Your task to perform on an android device: change your default location settings in chrome Image 0: 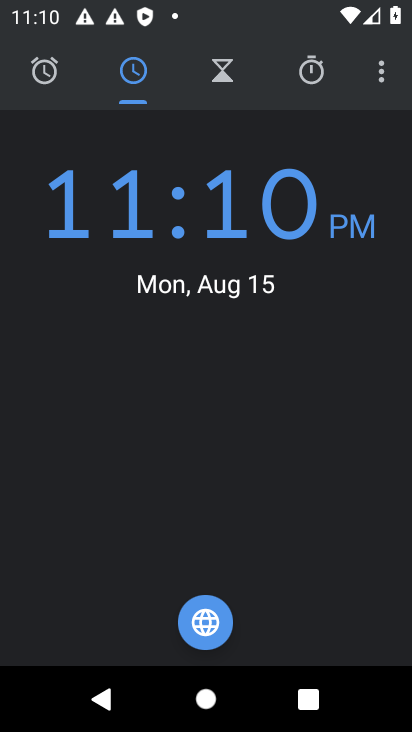
Step 0: press home button
Your task to perform on an android device: change your default location settings in chrome Image 1: 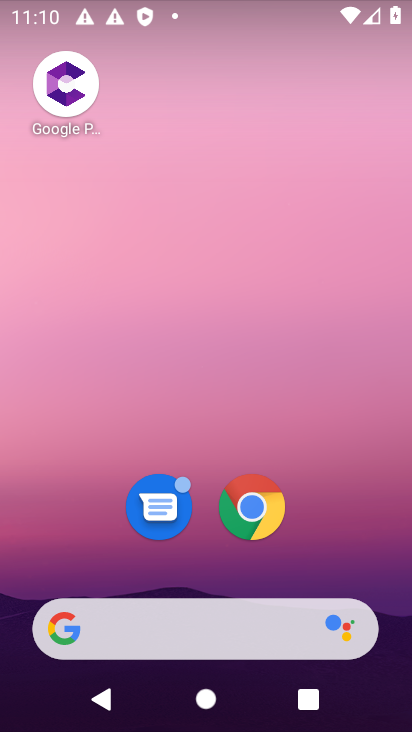
Step 1: click (251, 516)
Your task to perform on an android device: change your default location settings in chrome Image 2: 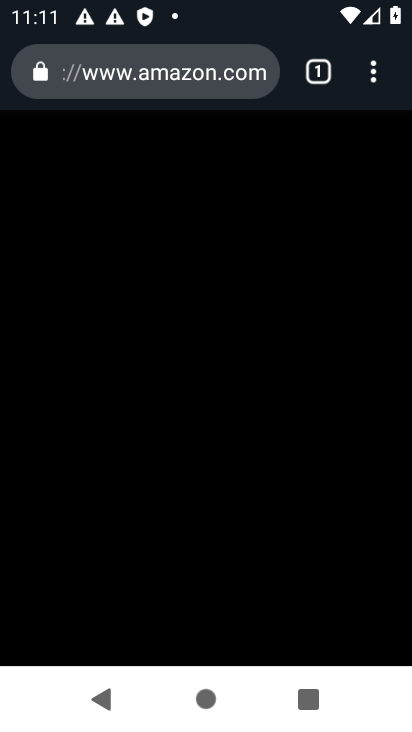
Step 2: click (370, 74)
Your task to perform on an android device: change your default location settings in chrome Image 3: 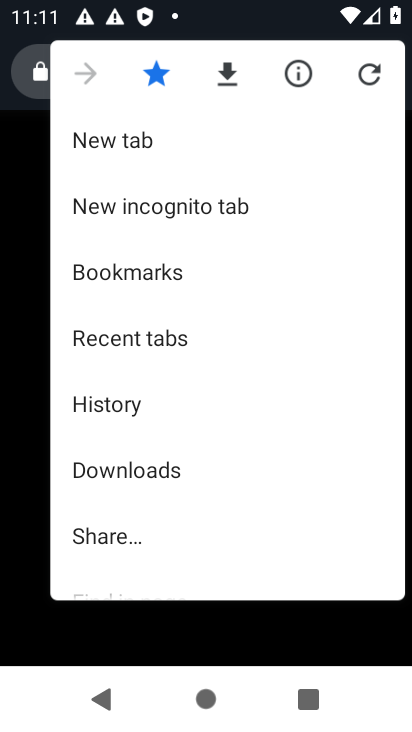
Step 3: drag from (207, 484) to (209, 203)
Your task to perform on an android device: change your default location settings in chrome Image 4: 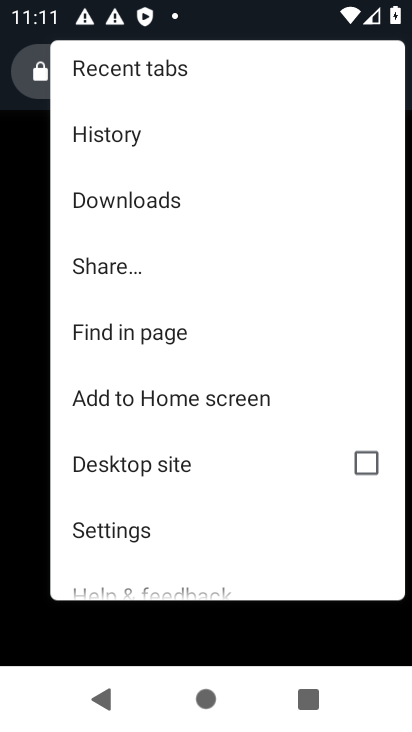
Step 4: click (120, 523)
Your task to perform on an android device: change your default location settings in chrome Image 5: 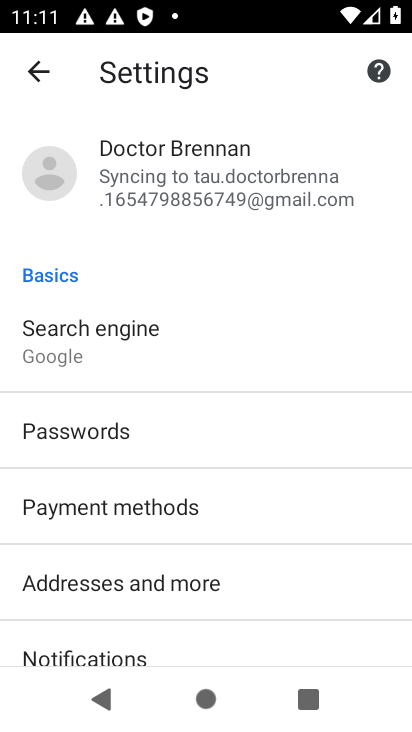
Step 5: drag from (237, 579) to (221, 282)
Your task to perform on an android device: change your default location settings in chrome Image 6: 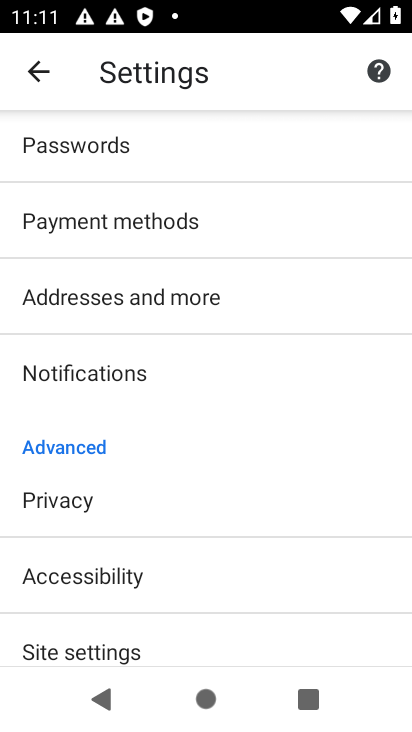
Step 6: drag from (248, 578) to (239, 368)
Your task to perform on an android device: change your default location settings in chrome Image 7: 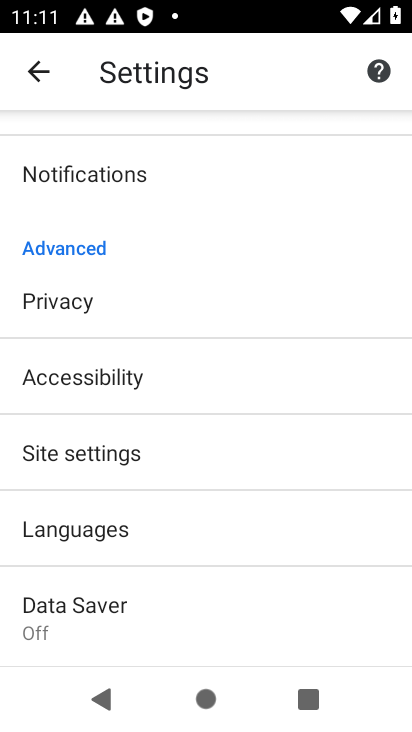
Step 7: click (81, 445)
Your task to perform on an android device: change your default location settings in chrome Image 8: 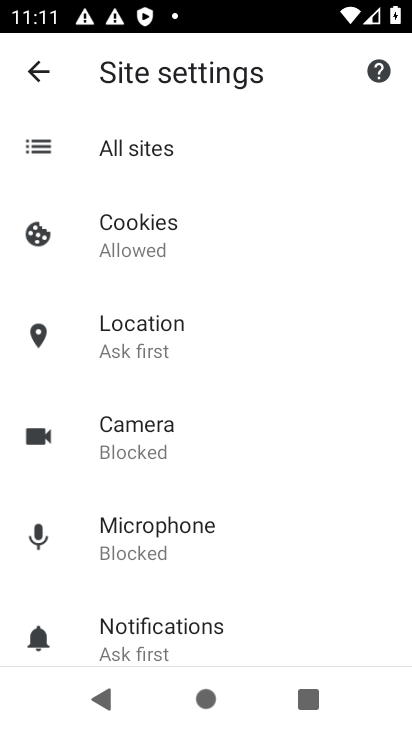
Step 8: click (130, 322)
Your task to perform on an android device: change your default location settings in chrome Image 9: 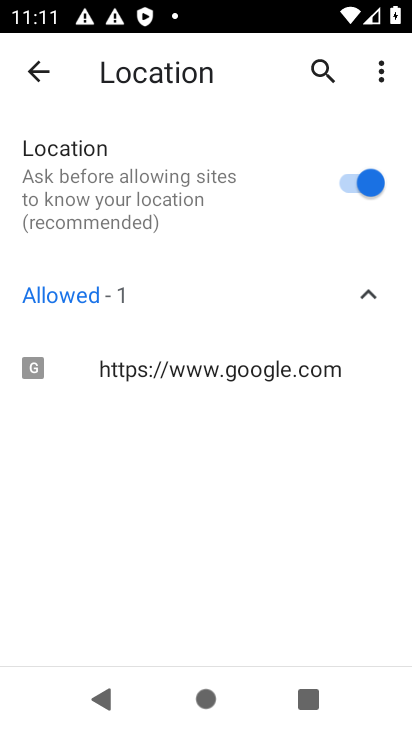
Step 9: click (368, 185)
Your task to perform on an android device: change your default location settings in chrome Image 10: 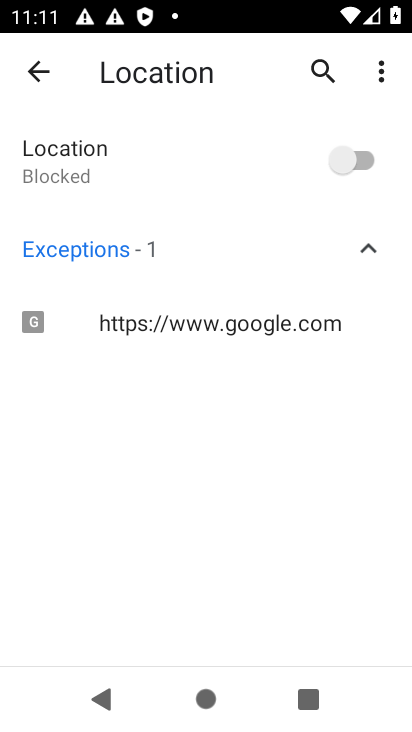
Step 10: task complete